Your task to perform on an android device: Search for the new Air Jordan 13 on Nike.com Image 0: 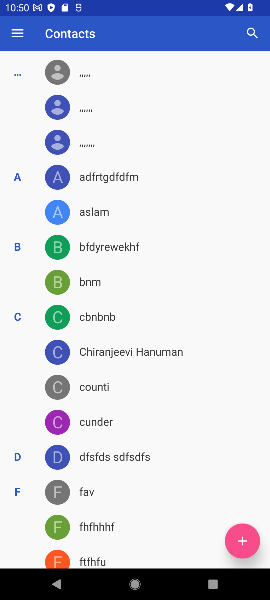
Step 0: press home button
Your task to perform on an android device: Search for the new Air Jordan 13 on Nike.com Image 1: 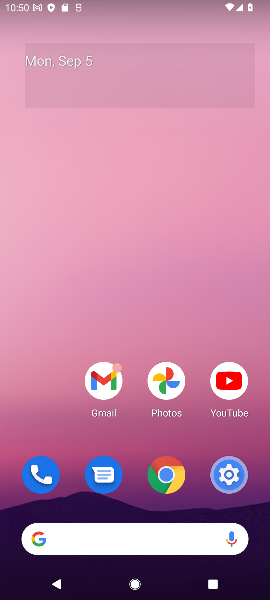
Step 1: click (117, 538)
Your task to perform on an android device: Search for the new Air Jordan 13 on Nike.com Image 2: 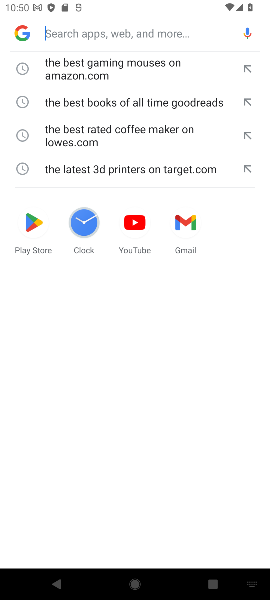
Step 2: type " the new Air Jordan 13 on Nike.com"
Your task to perform on an android device: Search for the new Air Jordan 13 on Nike.com Image 3: 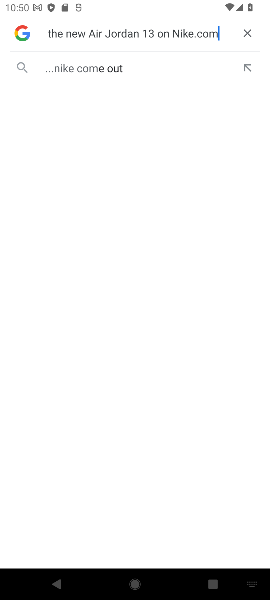
Step 3: click (90, 65)
Your task to perform on an android device: Search for the new Air Jordan 13 on Nike.com Image 4: 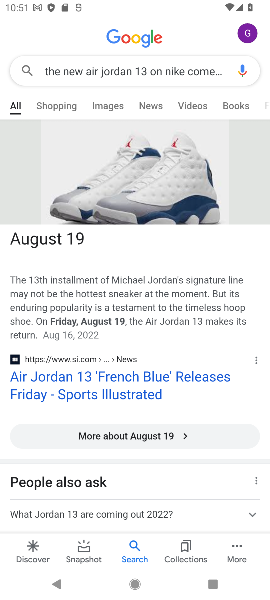
Step 4: task complete